Your task to perform on an android device: Go to notification settings Image 0: 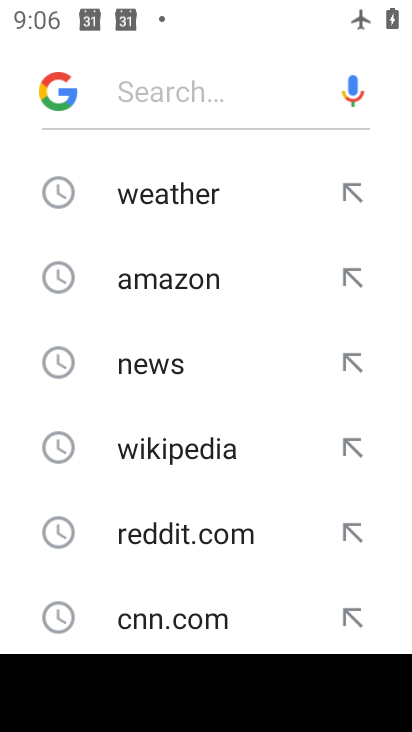
Step 0: press home button
Your task to perform on an android device: Go to notification settings Image 1: 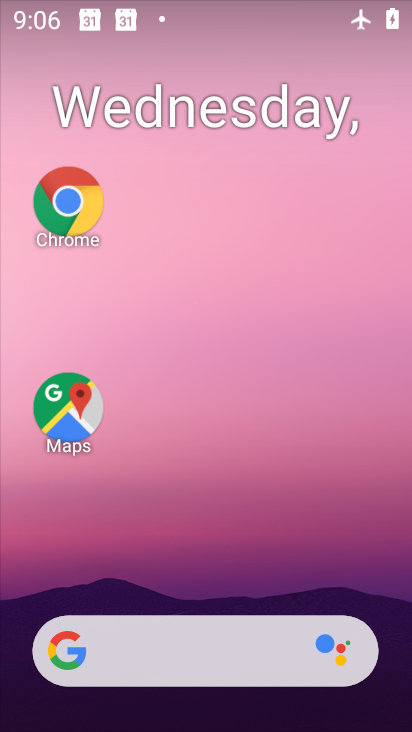
Step 1: drag from (181, 607) to (360, 2)
Your task to perform on an android device: Go to notification settings Image 2: 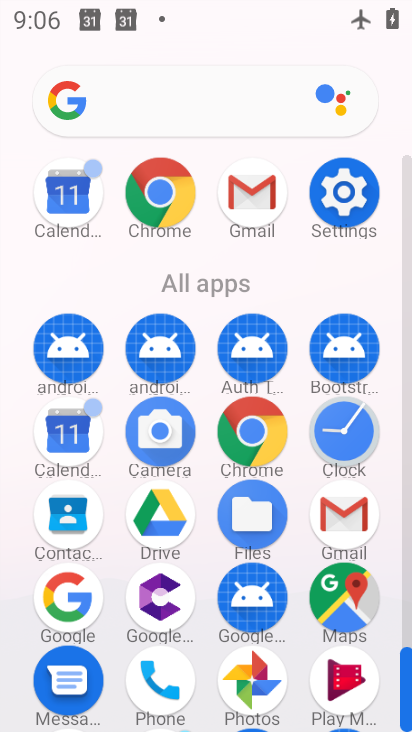
Step 2: click (351, 174)
Your task to perform on an android device: Go to notification settings Image 3: 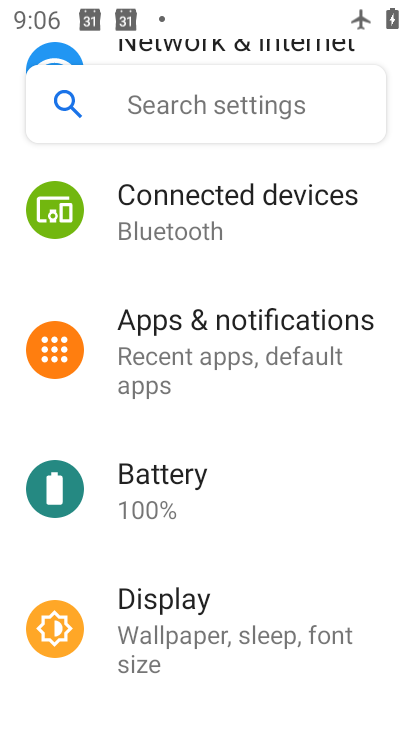
Step 3: click (260, 360)
Your task to perform on an android device: Go to notification settings Image 4: 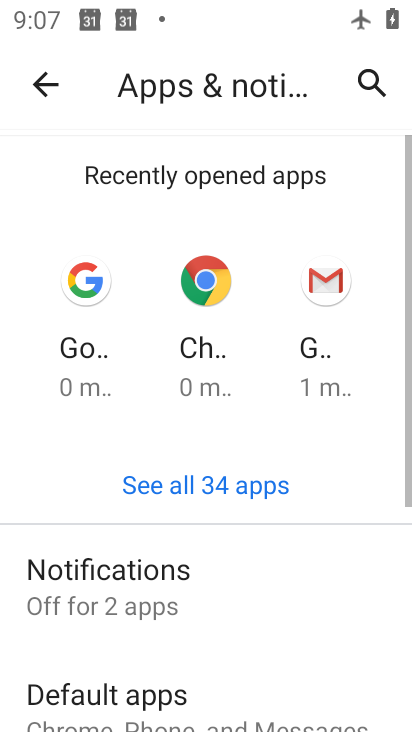
Step 4: click (83, 567)
Your task to perform on an android device: Go to notification settings Image 5: 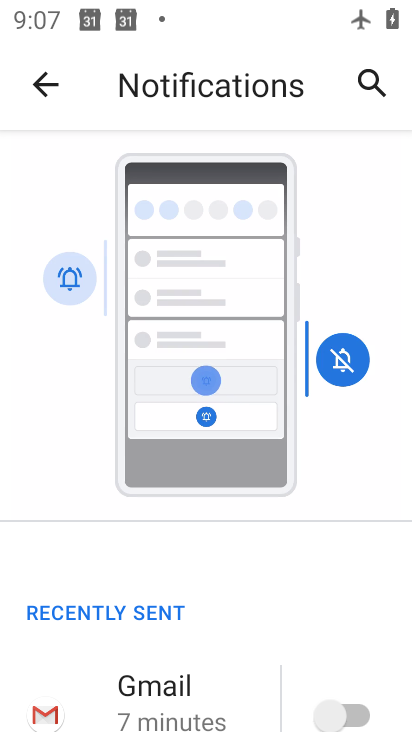
Step 5: task complete